Your task to perform on an android device: Open Reddit.com Image 0: 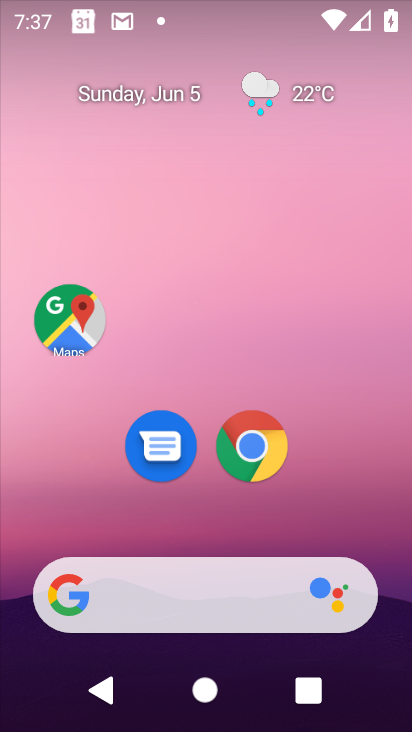
Step 0: click (250, 448)
Your task to perform on an android device: Open Reddit.com Image 1: 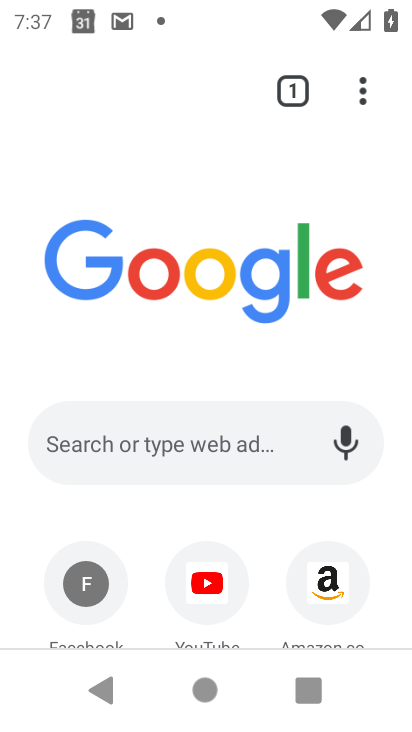
Step 1: click (183, 462)
Your task to perform on an android device: Open Reddit.com Image 2: 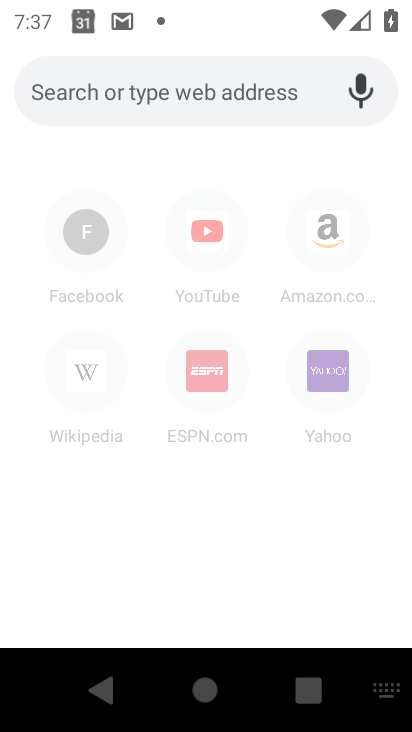
Step 2: type "reddit.com"
Your task to perform on an android device: Open Reddit.com Image 3: 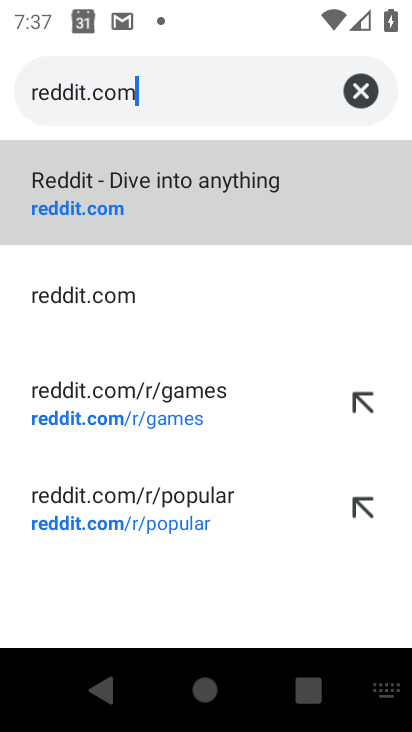
Step 3: click (72, 294)
Your task to perform on an android device: Open Reddit.com Image 4: 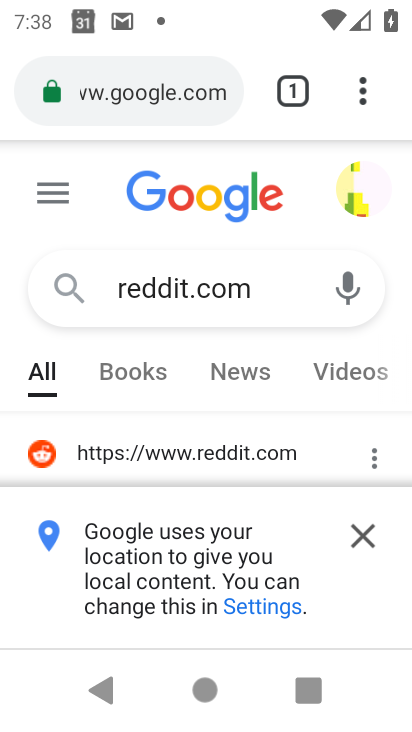
Step 4: task complete